Your task to perform on an android device: turn on sleep mode Image 0: 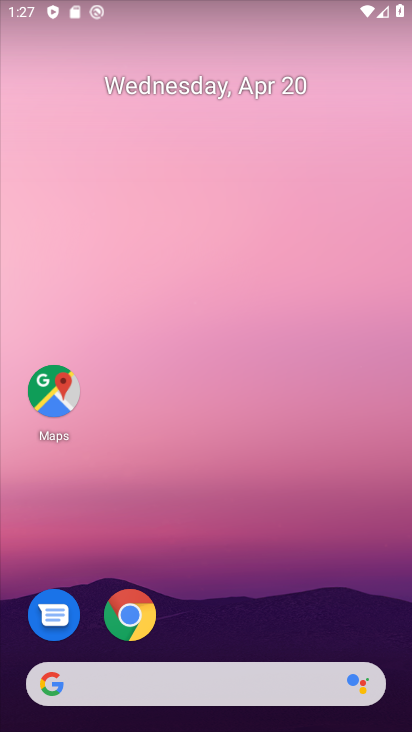
Step 0: drag from (269, 631) to (332, 17)
Your task to perform on an android device: turn on sleep mode Image 1: 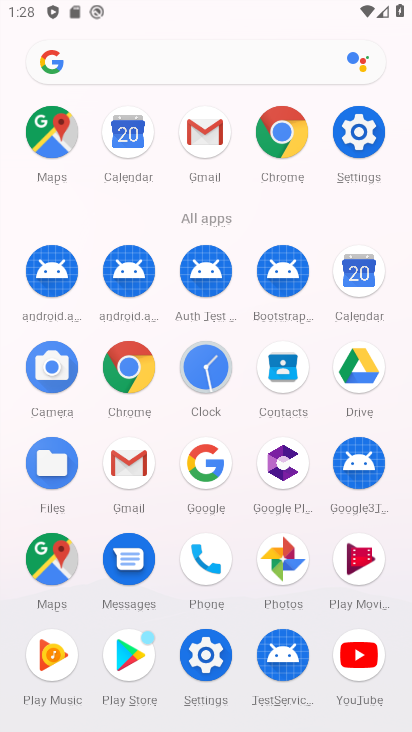
Step 1: click (341, 126)
Your task to perform on an android device: turn on sleep mode Image 2: 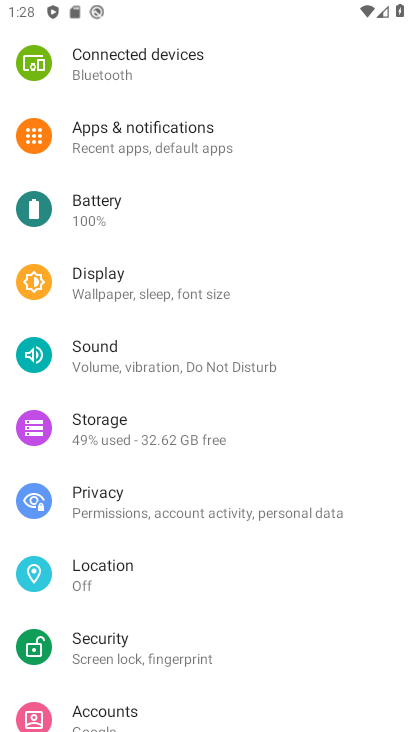
Step 2: click (199, 307)
Your task to perform on an android device: turn on sleep mode Image 3: 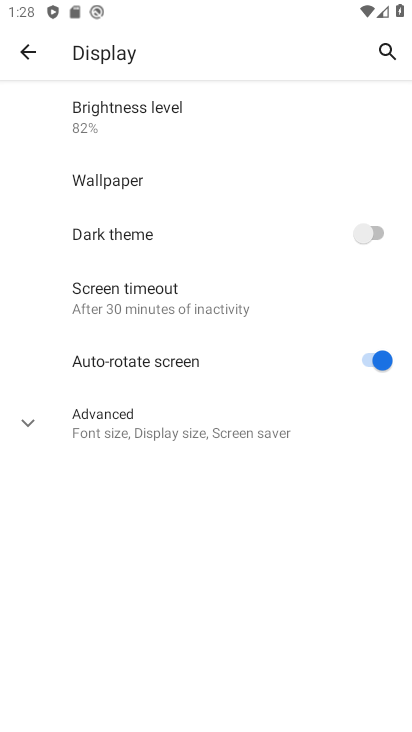
Step 3: click (186, 425)
Your task to perform on an android device: turn on sleep mode Image 4: 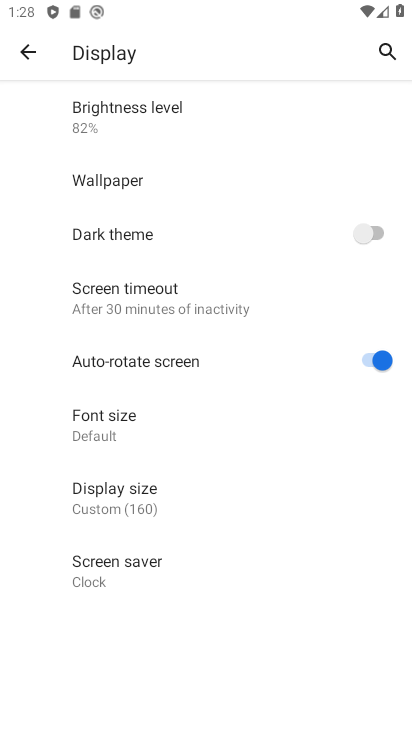
Step 4: click (38, 47)
Your task to perform on an android device: turn on sleep mode Image 5: 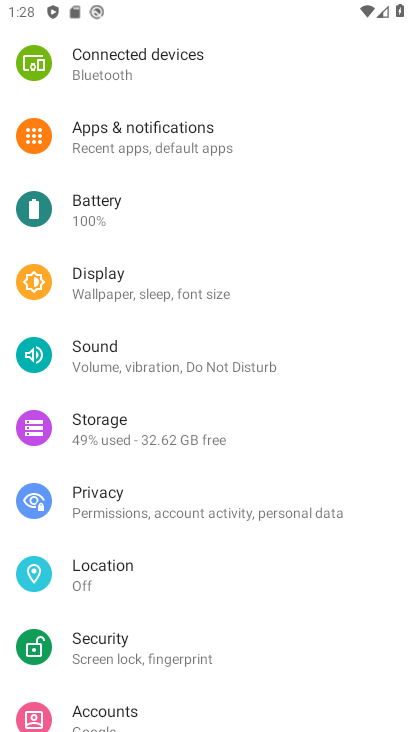
Step 5: task complete